Your task to perform on an android device: Show me recent news Image 0: 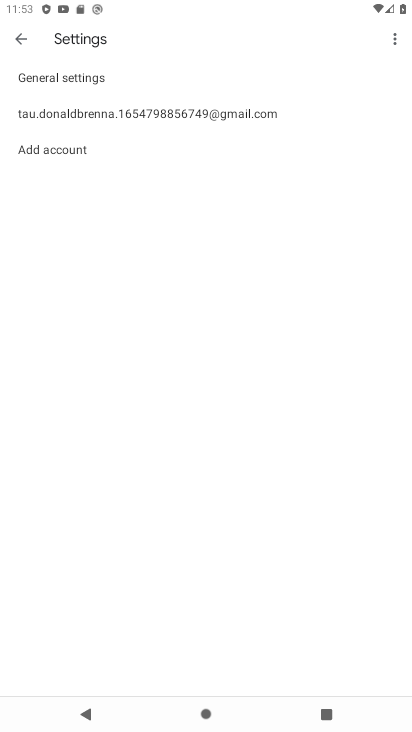
Step 0: press home button
Your task to perform on an android device: Show me recent news Image 1: 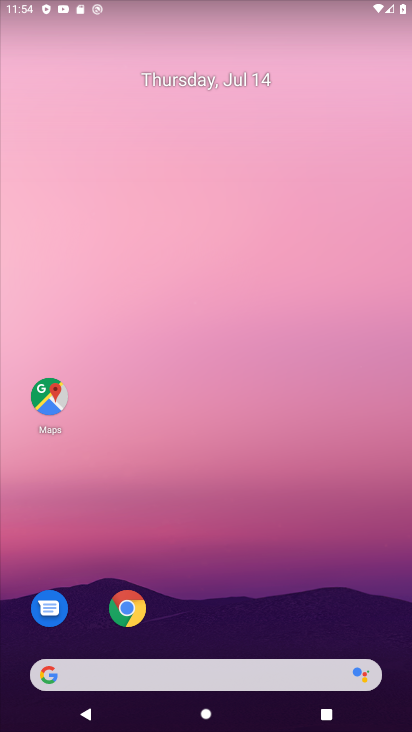
Step 1: drag from (218, 626) to (221, 80)
Your task to perform on an android device: Show me recent news Image 2: 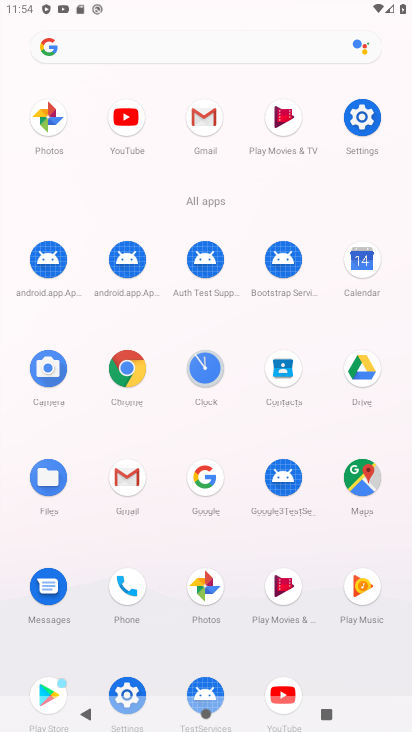
Step 2: click (205, 479)
Your task to perform on an android device: Show me recent news Image 3: 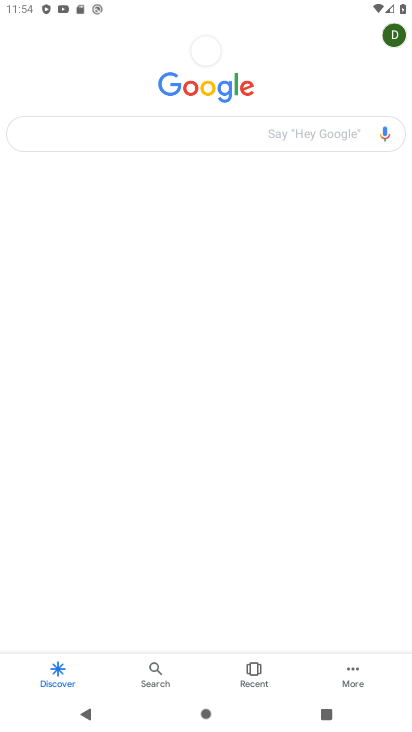
Step 3: click (210, 133)
Your task to perform on an android device: Show me recent news Image 4: 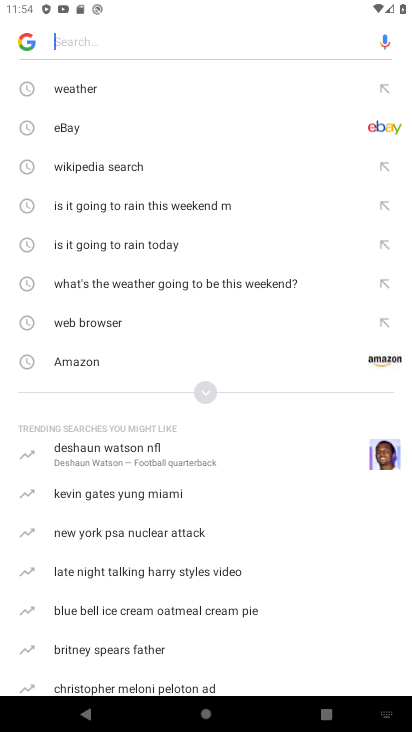
Step 4: type "recent news"
Your task to perform on an android device: Show me recent news Image 5: 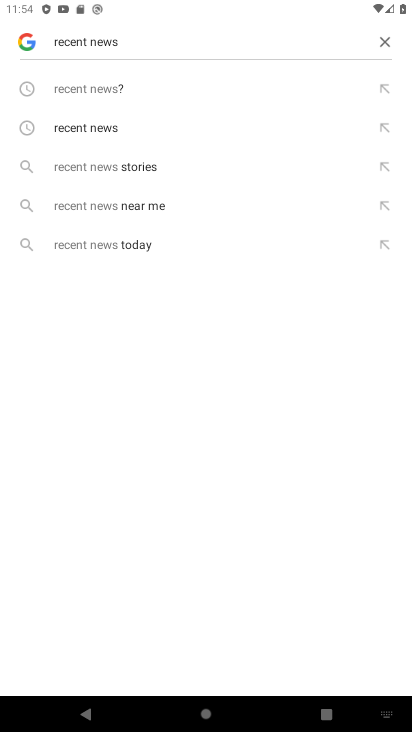
Step 5: click (120, 126)
Your task to perform on an android device: Show me recent news Image 6: 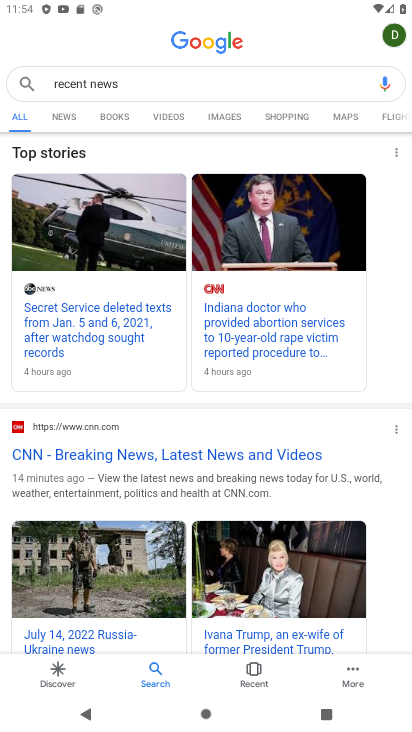
Step 6: task complete